Your task to perform on an android device: turn on wifi Image 0: 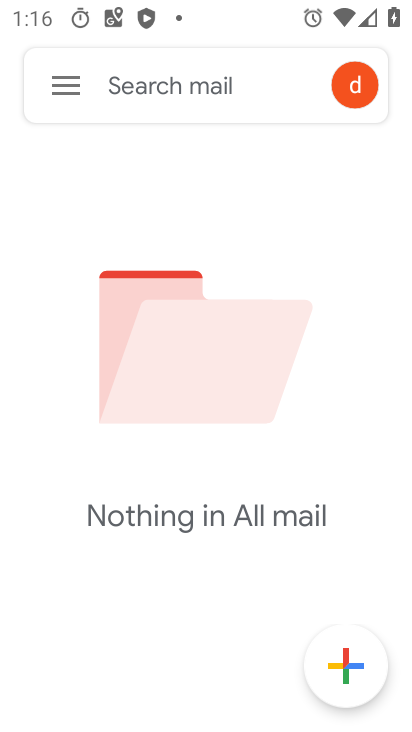
Step 0: press back button
Your task to perform on an android device: turn on wifi Image 1: 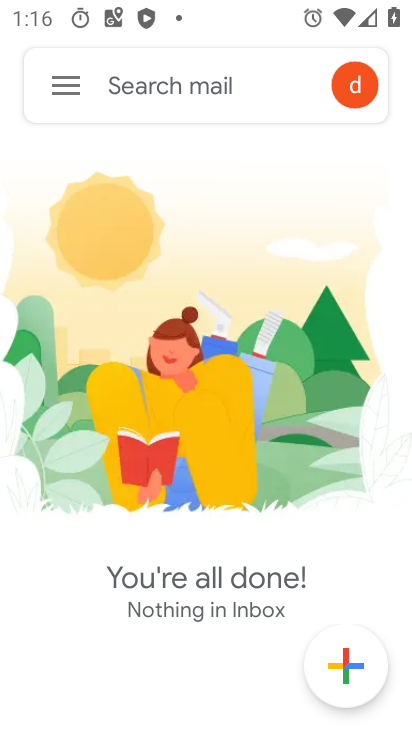
Step 1: task complete